Your task to perform on an android device: toggle data saver in the chrome app Image 0: 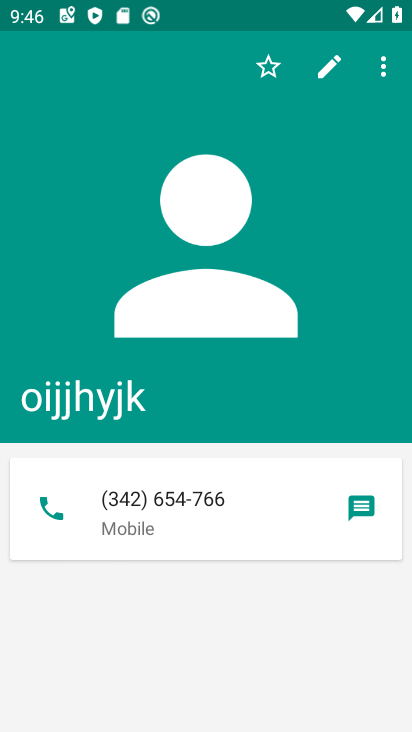
Step 0: press home button
Your task to perform on an android device: toggle data saver in the chrome app Image 1: 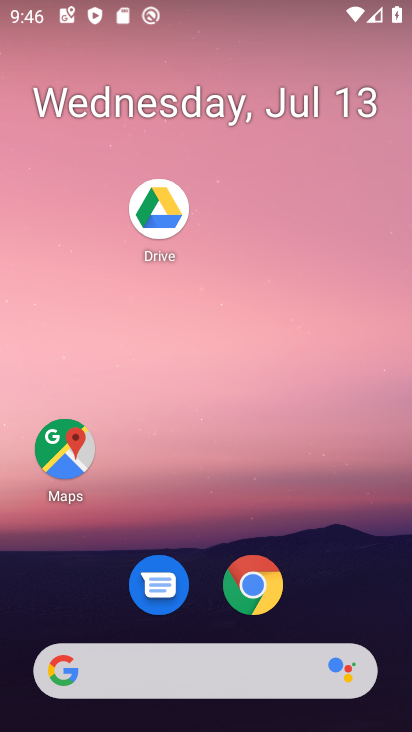
Step 1: click (259, 589)
Your task to perform on an android device: toggle data saver in the chrome app Image 2: 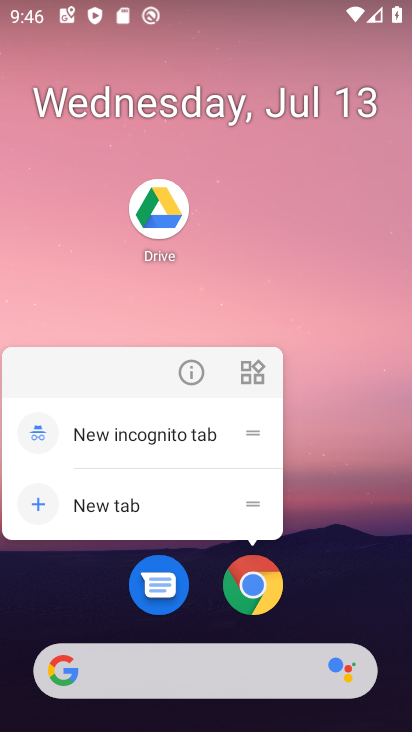
Step 2: click (258, 591)
Your task to perform on an android device: toggle data saver in the chrome app Image 3: 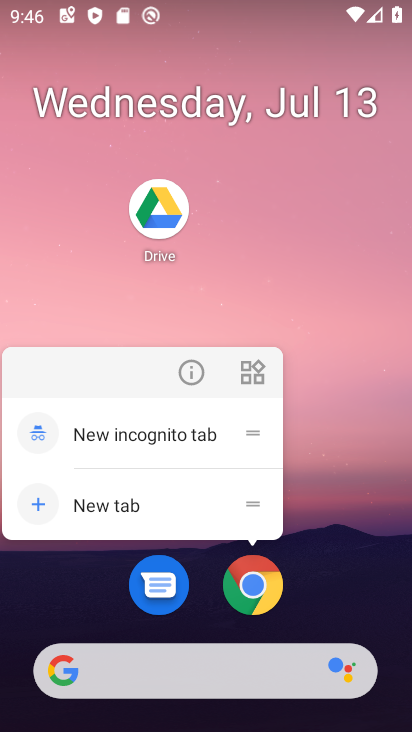
Step 3: click (253, 588)
Your task to perform on an android device: toggle data saver in the chrome app Image 4: 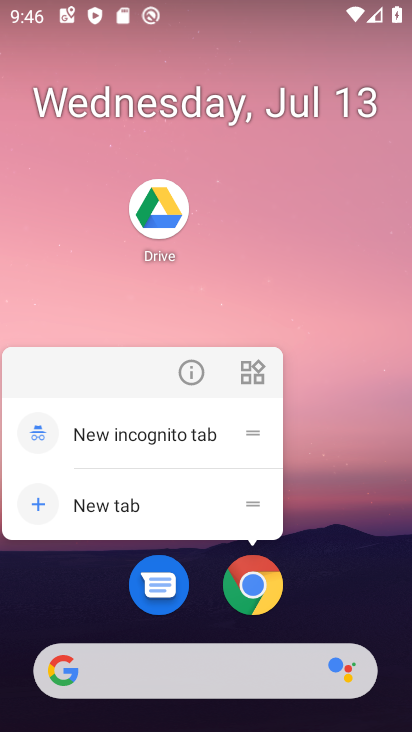
Step 4: click (253, 586)
Your task to perform on an android device: toggle data saver in the chrome app Image 5: 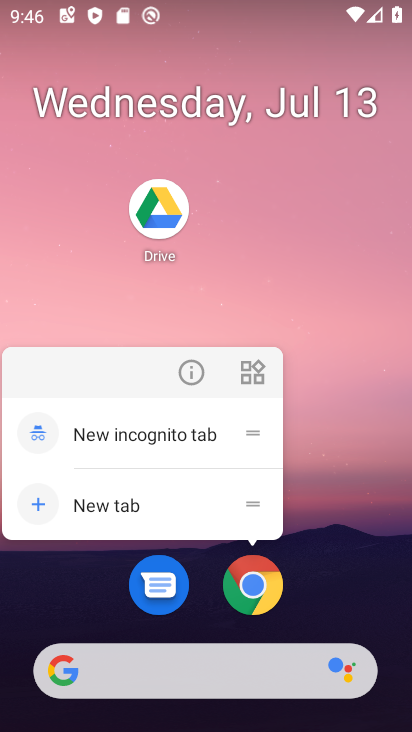
Step 5: click (261, 583)
Your task to perform on an android device: toggle data saver in the chrome app Image 6: 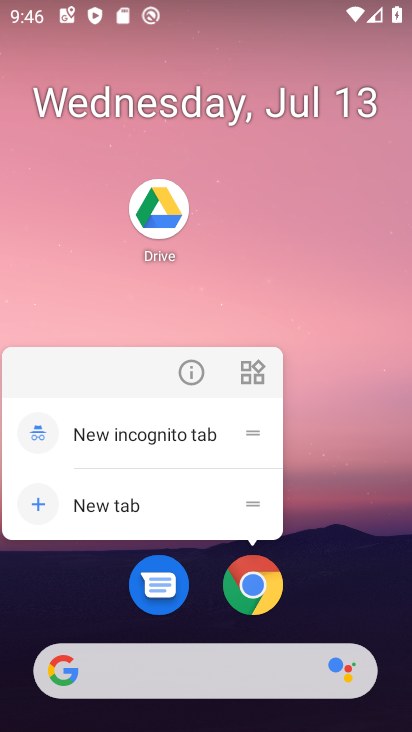
Step 6: click (261, 587)
Your task to perform on an android device: toggle data saver in the chrome app Image 7: 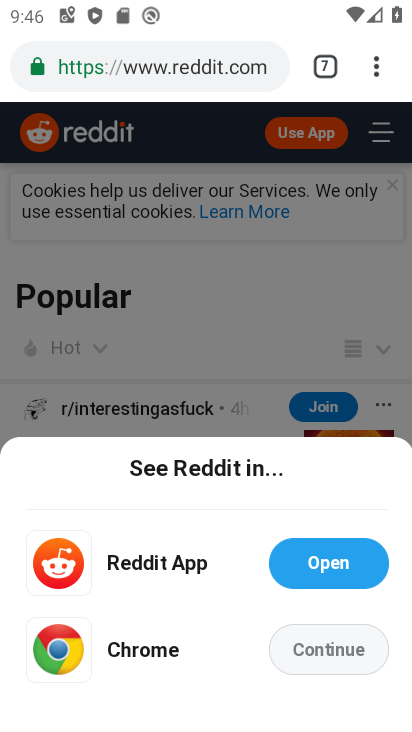
Step 7: drag from (374, 58) to (214, 594)
Your task to perform on an android device: toggle data saver in the chrome app Image 8: 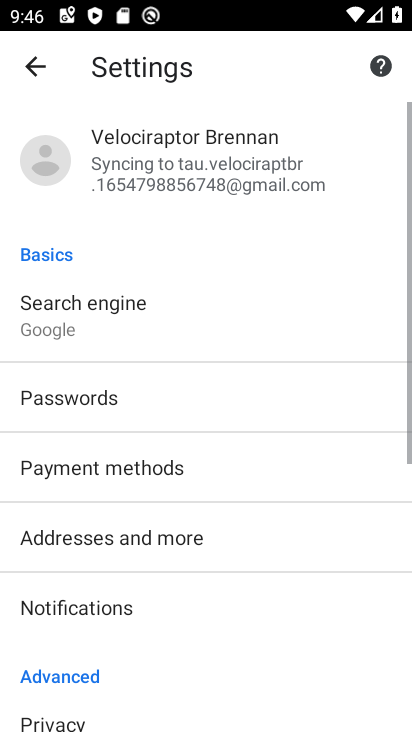
Step 8: drag from (163, 650) to (347, 84)
Your task to perform on an android device: toggle data saver in the chrome app Image 9: 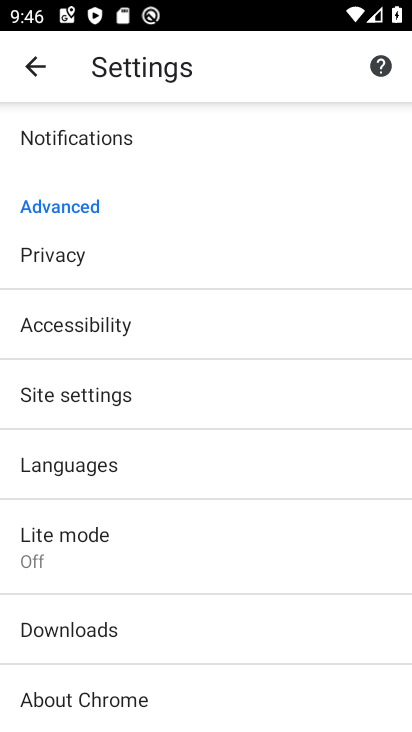
Step 9: click (95, 526)
Your task to perform on an android device: toggle data saver in the chrome app Image 10: 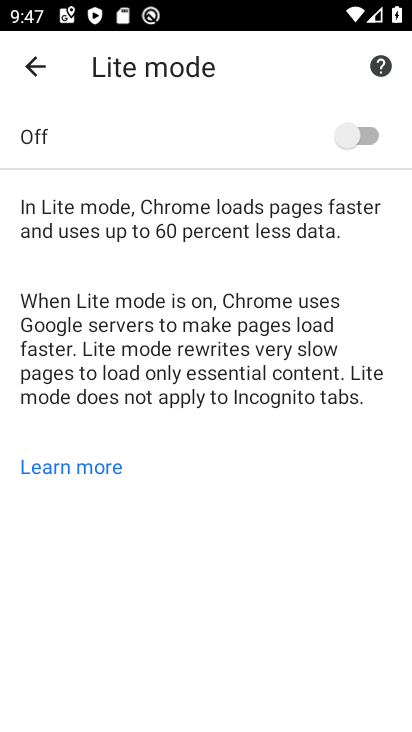
Step 10: click (372, 125)
Your task to perform on an android device: toggle data saver in the chrome app Image 11: 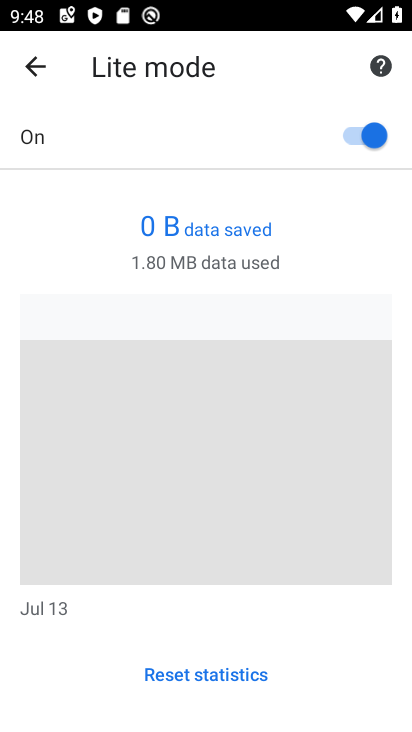
Step 11: task complete